Your task to perform on an android device: see sites visited before in the chrome app Image 0: 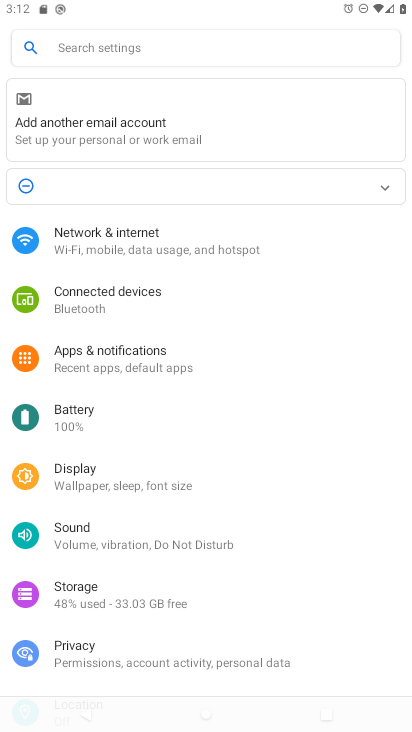
Step 0: press home button
Your task to perform on an android device: see sites visited before in the chrome app Image 1: 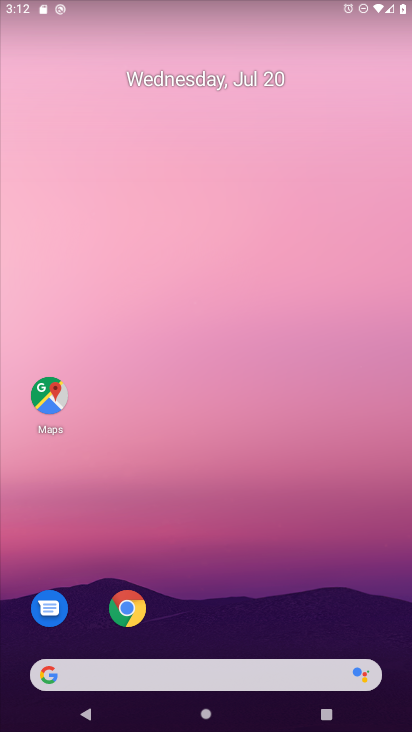
Step 1: click (130, 613)
Your task to perform on an android device: see sites visited before in the chrome app Image 2: 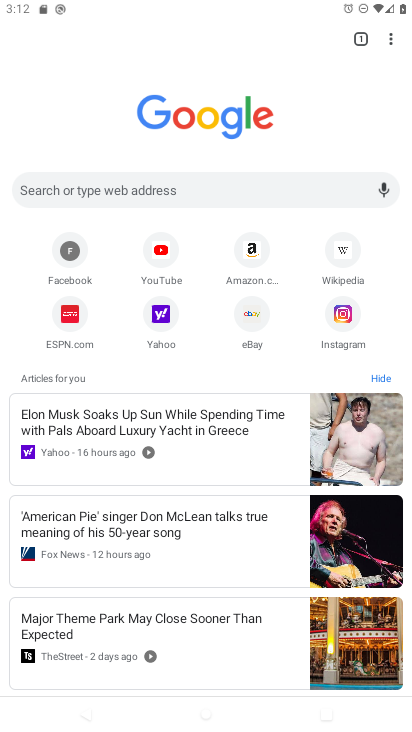
Step 2: click (390, 40)
Your task to perform on an android device: see sites visited before in the chrome app Image 3: 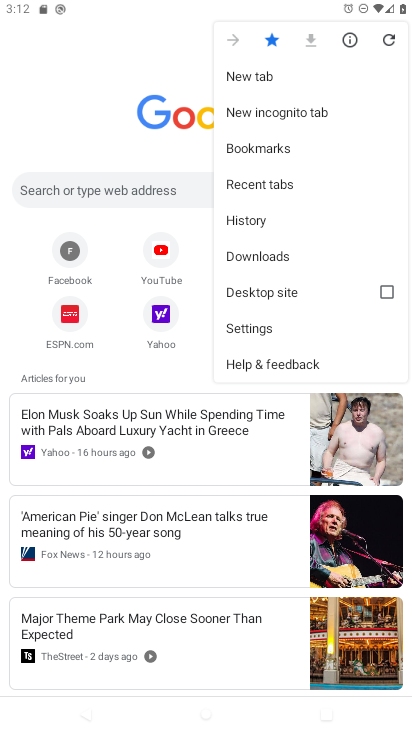
Step 3: click (275, 187)
Your task to perform on an android device: see sites visited before in the chrome app Image 4: 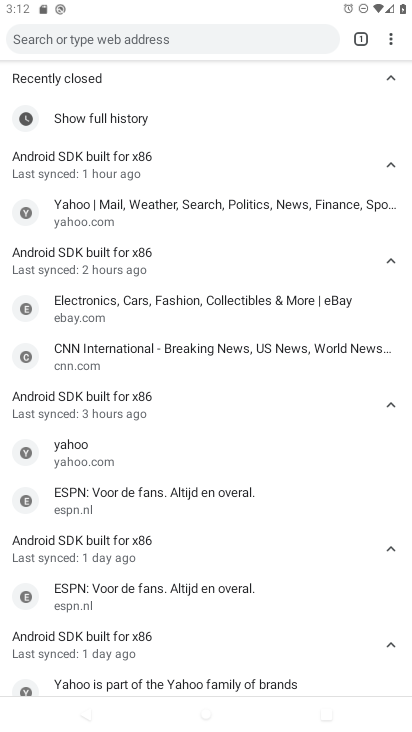
Step 4: task complete